Your task to perform on an android device: Go to internet settings Image 0: 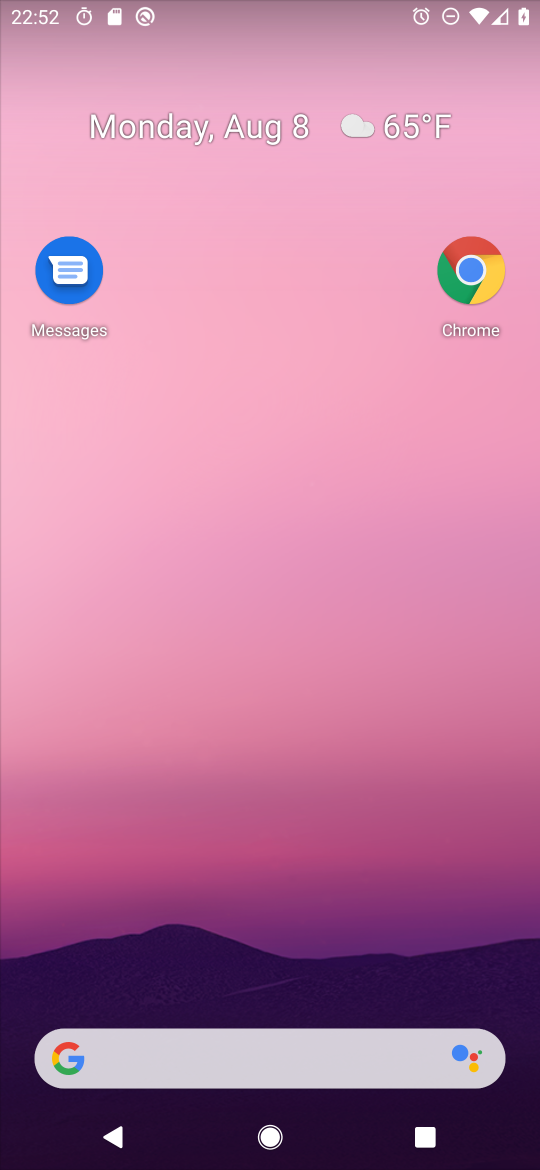
Step 0: click (340, 661)
Your task to perform on an android device: Go to internet settings Image 1: 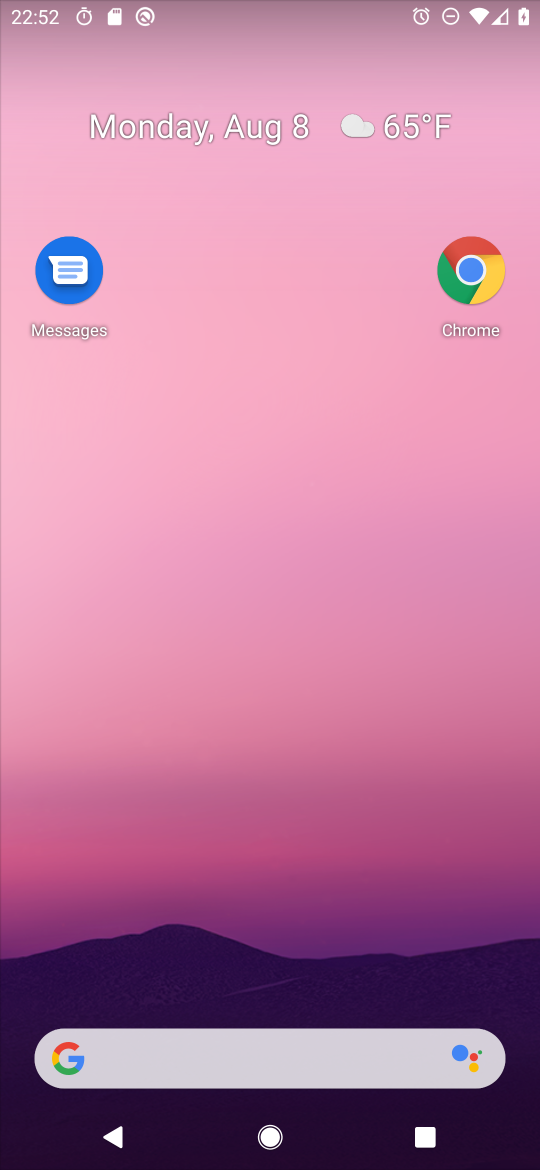
Step 1: drag from (296, 670) to (372, 245)
Your task to perform on an android device: Go to internet settings Image 2: 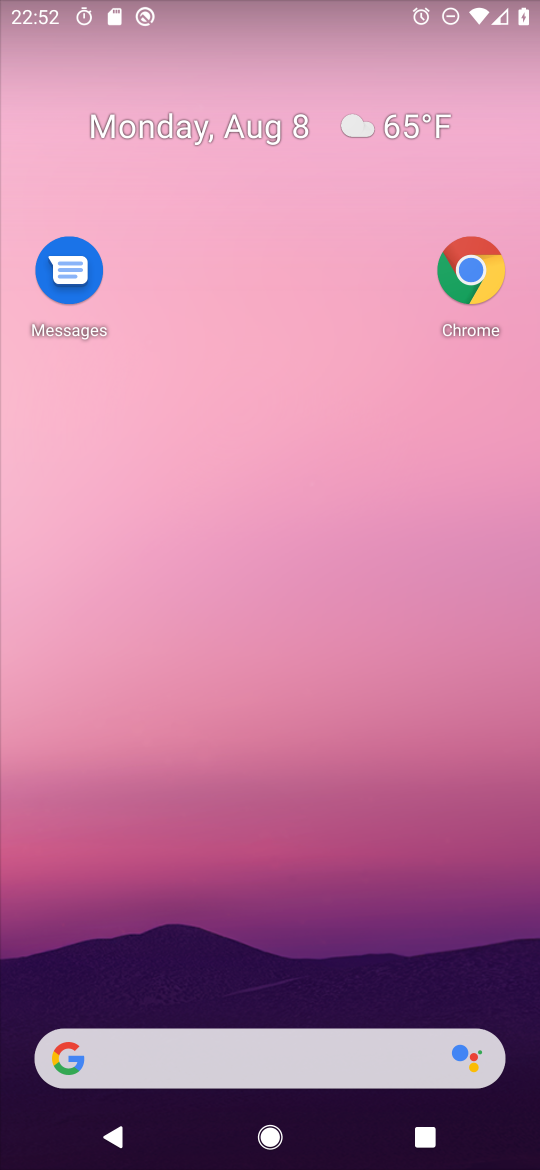
Step 2: drag from (217, 538) to (217, 231)
Your task to perform on an android device: Go to internet settings Image 3: 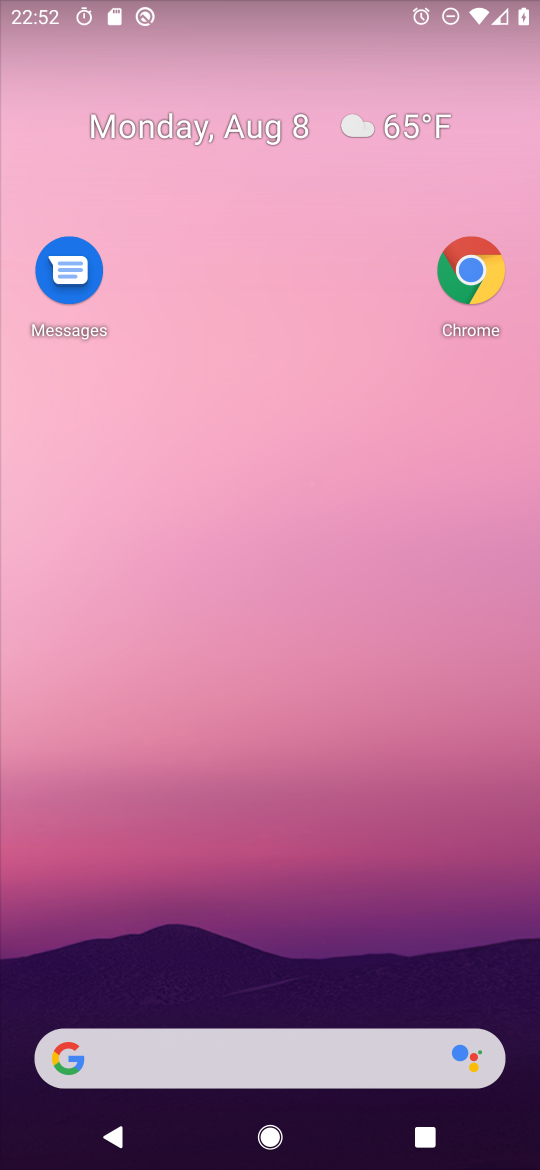
Step 3: drag from (233, 979) to (287, 342)
Your task to perform on an android device: Go to internet settings Image 4: 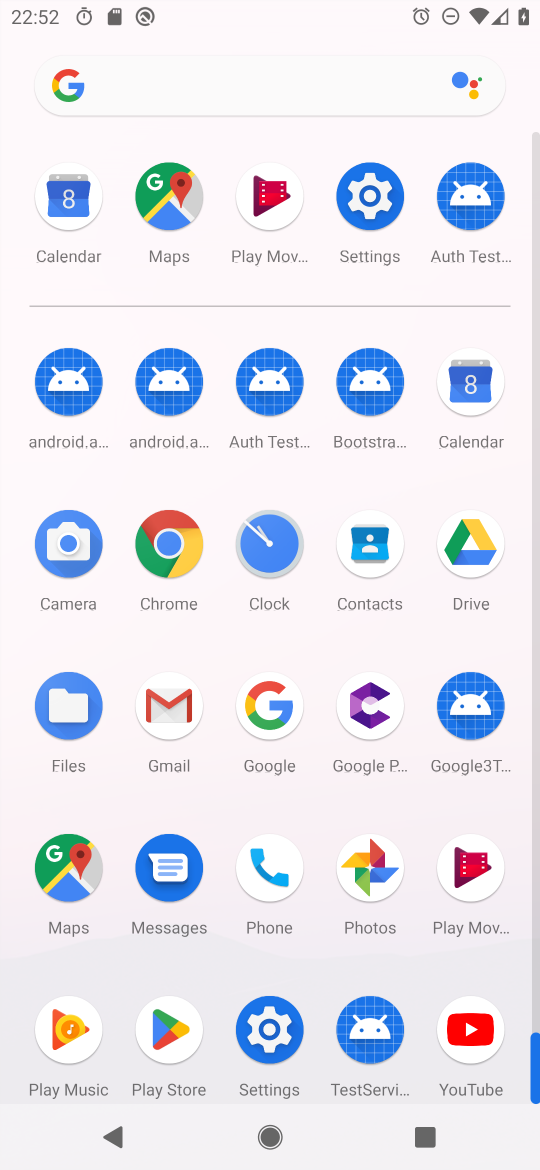
Step 4: click (385, 173)
Your task to perform on an android device: Go to internet settings Image 5: 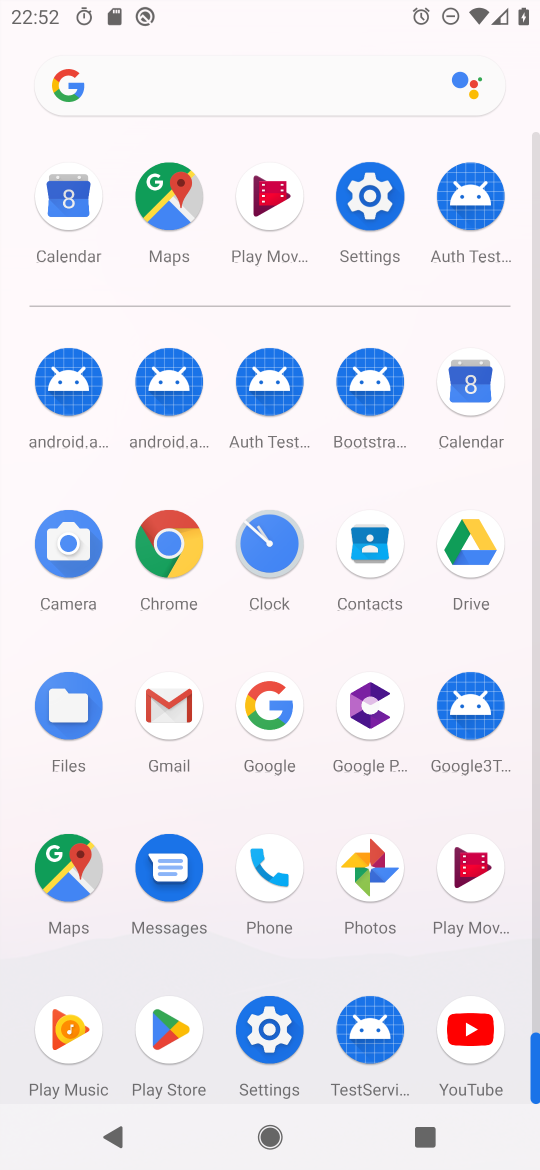
Step 5: click (385, 173)
Your task to perform on an android device: Go to internet settings Image 6: 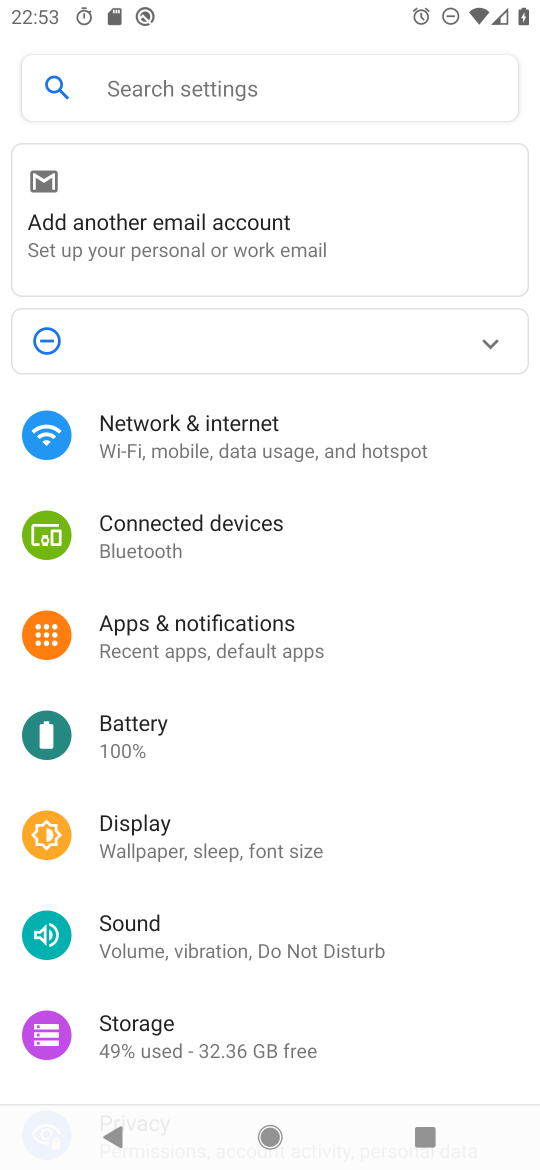
Step 6: drag from (255, 992) to (273, 899)
Your task to perform on an android device: Go to internet settings Image 7: 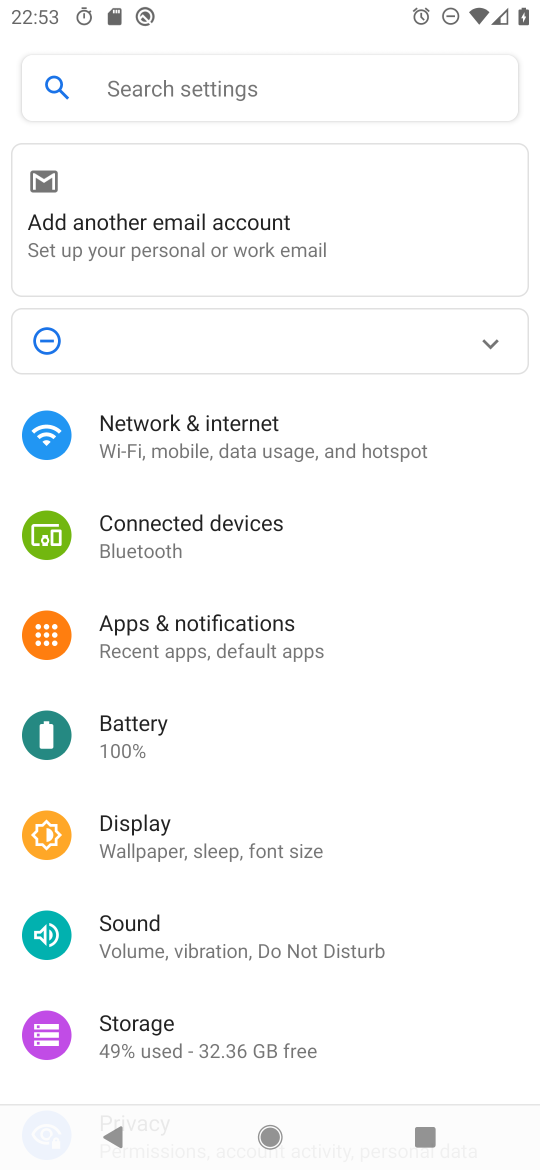
Step 7: click (157, 423)
Your task to perform on an android device: Go to internet settings Image 8: 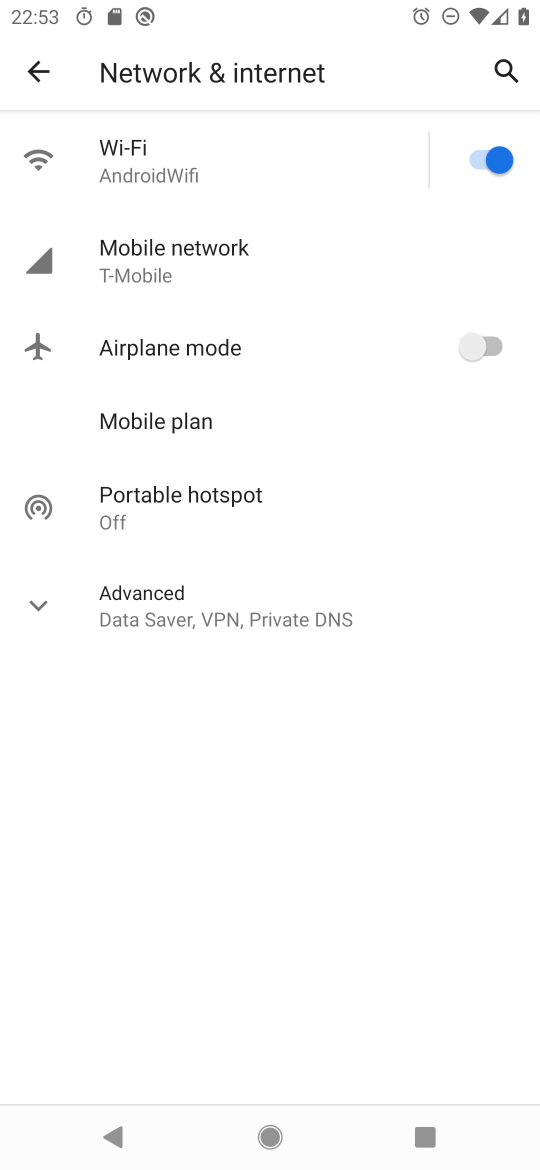
Step 8: task complete